Your task to perform on an android device: manage bookmarks in the chrome app Image 0: 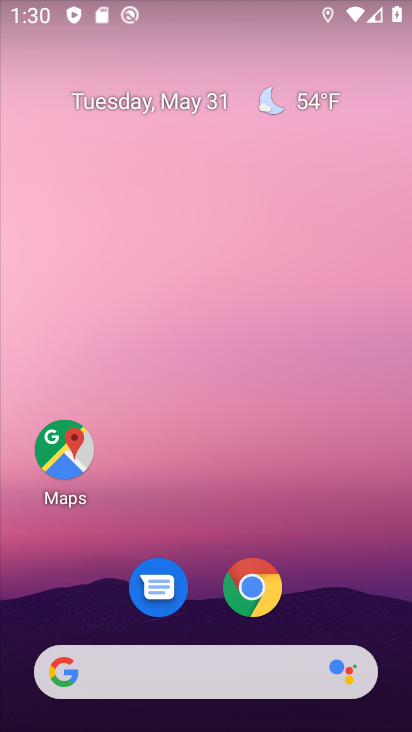
Step 0: drag from (202, 618) to (240, 197)
Your task to perform on an android device: manage bookmarks in the chrome app Image 1: 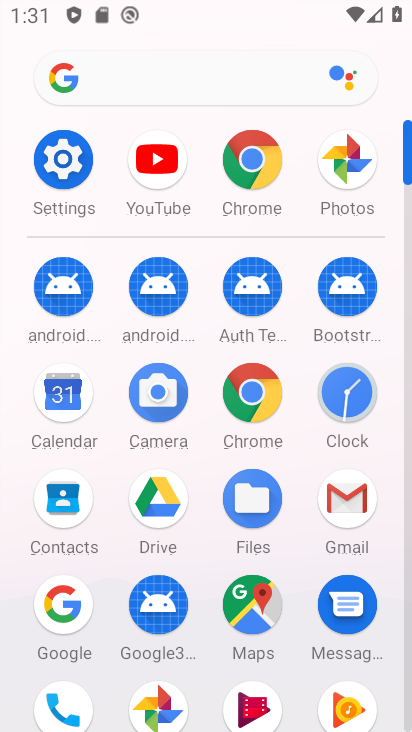
Step 1: click (236, 397)
Your task to perform on an android device: manage bookmarks in the chrome app Image 2: 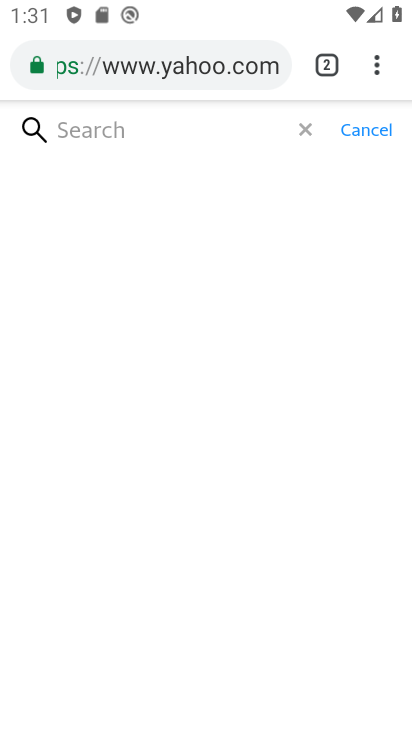
Step 2: task complete